Your task to perform on an android device: Search for a new lipstick on Sephora Image 0: 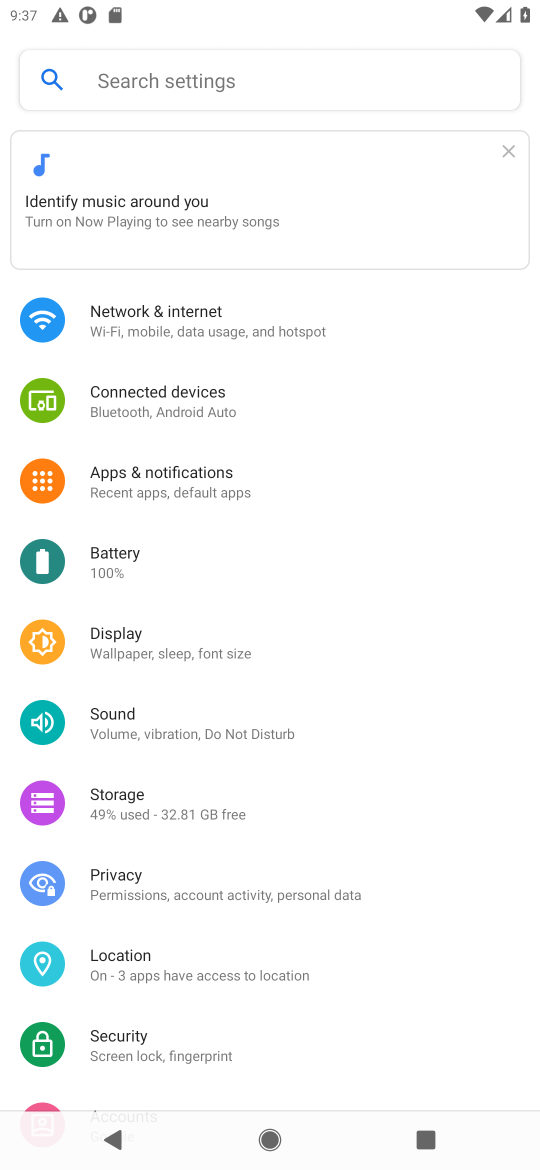
Step 0: press home button
Your task to perform on an android device: Search for a new lipstick on Sephora Image 1: 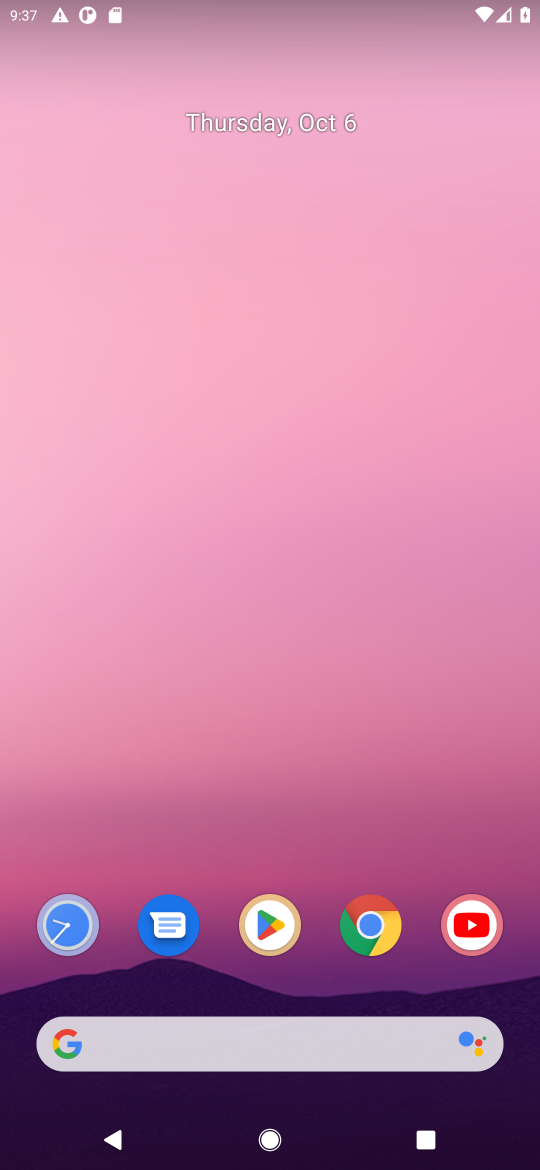
Step 1: click (352, 933)
Your task to perform on an android device: Search for a new lipstick on Sephora Image 2: 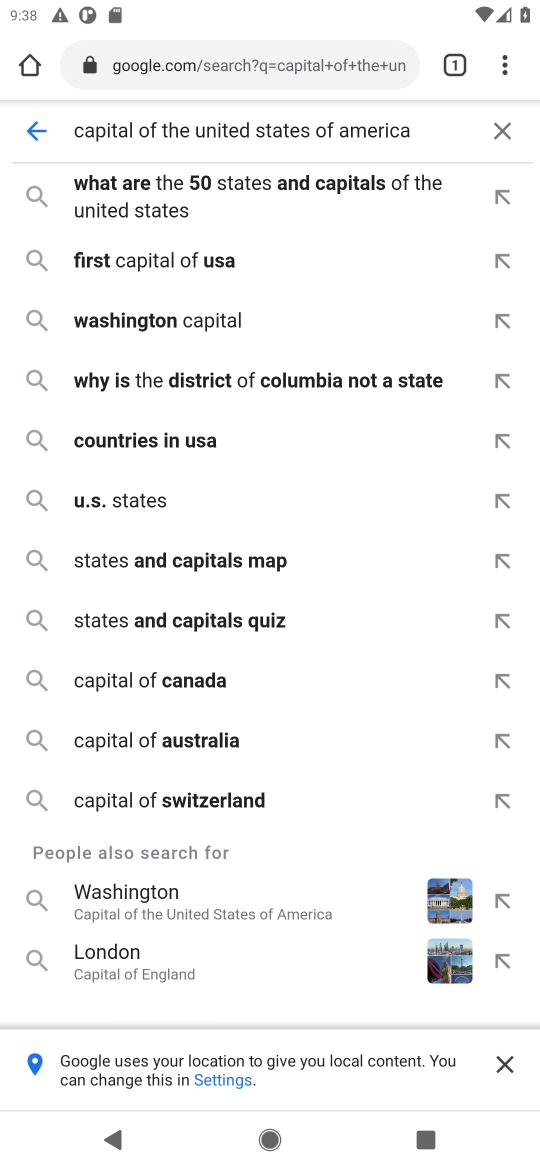
Step 2: click (118, 57)
Your task to perform on an android device: Search for a new lipstick on Sephora Image 3: 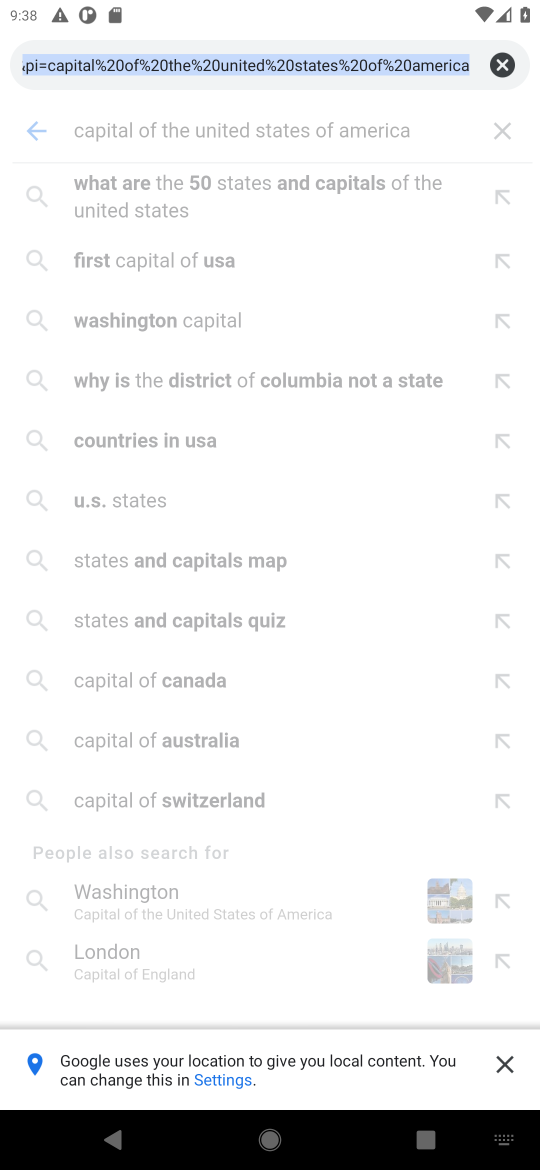
Step 3: click (120, 60)
Your task to perform on an android device: Search for a new lipstick on Sephora Image 4: 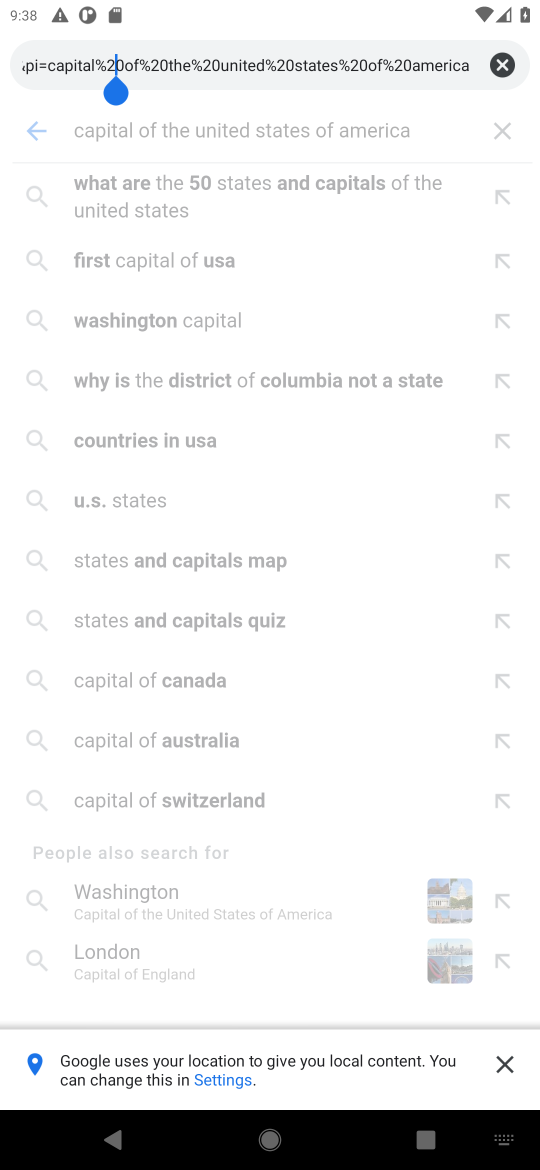
Step 4: click (496, 70)
Your task to perform on an android device: Search for a new lipstick on Sephora Image 5: 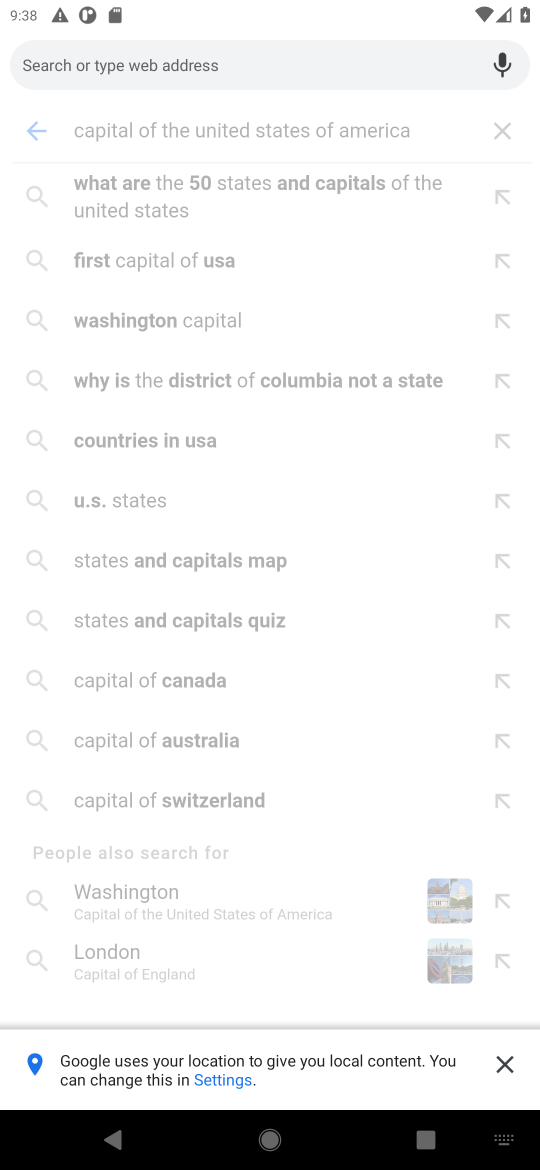
Step 5: type "new lipstick on Sephora"
Your task to perform on an android device: Search for a new lipstick on Sephora Image 6: 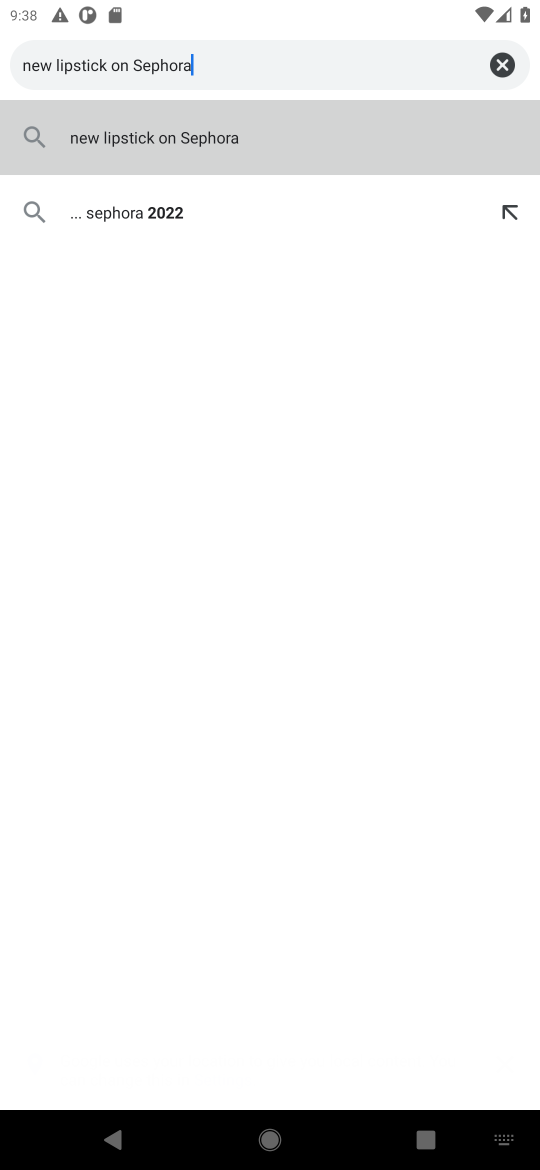
Step 6: click (169, 133)
Your task to perform on an android device: Search for a new lipstick on Sephora Image 7: 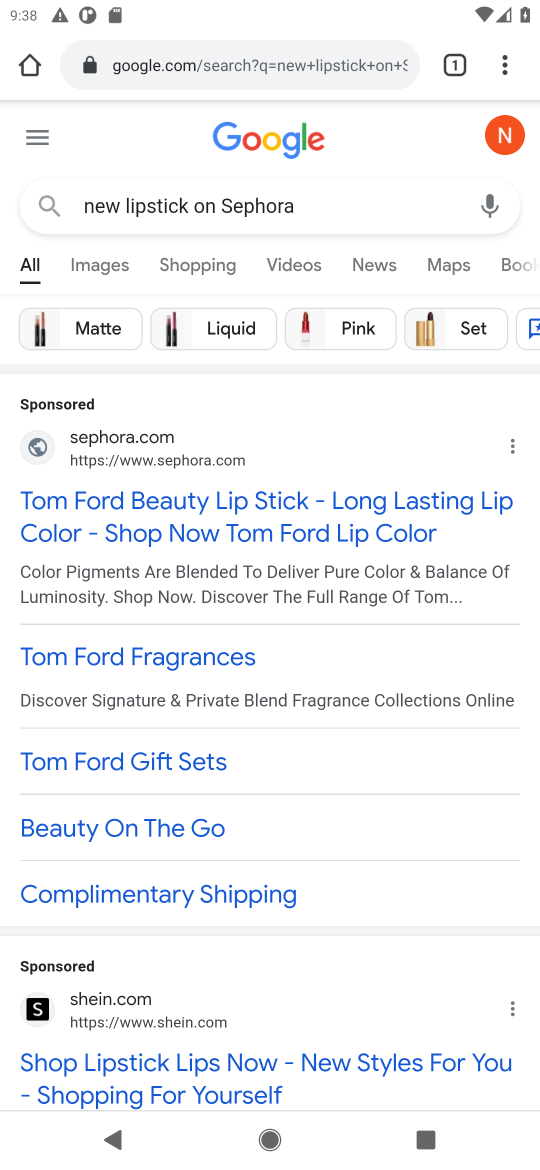
Step 7: click (218, 527)
Your task to perform on an android device: Search for a new lipstick on Sephora Image 8: 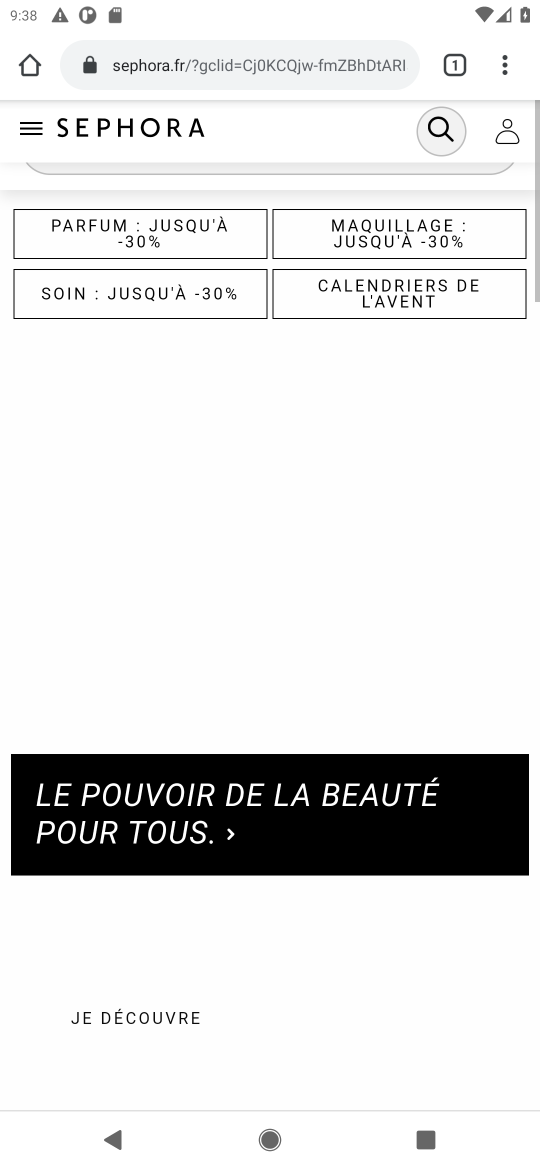
Step 8: click (192, 506)
Your task to perform on an android device: Search for a new lipstick on Sephora Image 9: 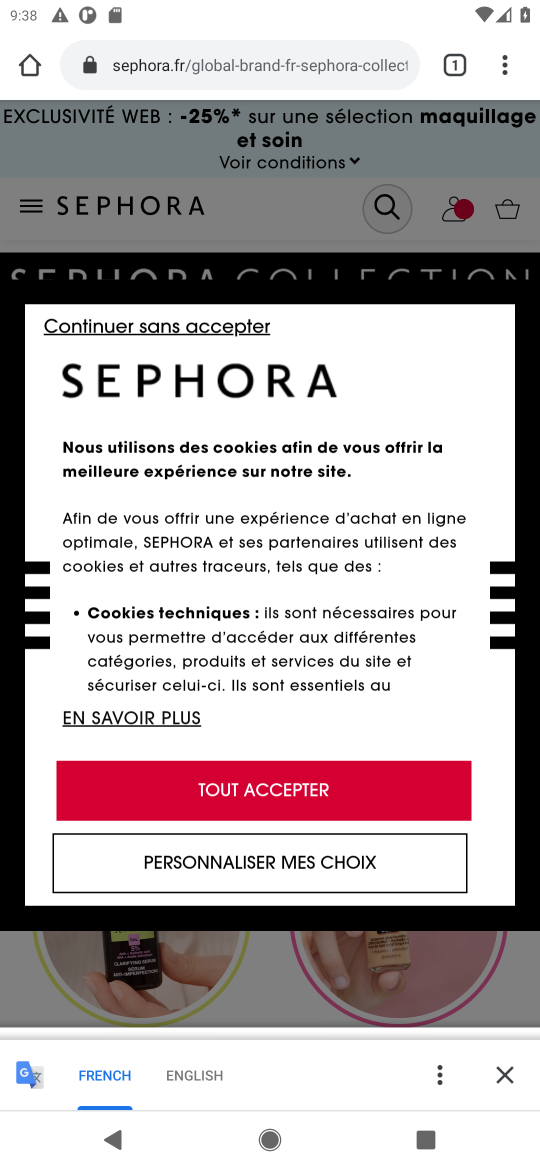
Step 9: click (241, 804)
Your task to perform on an android device: Search for a new lipstick on Sephora Image 10: 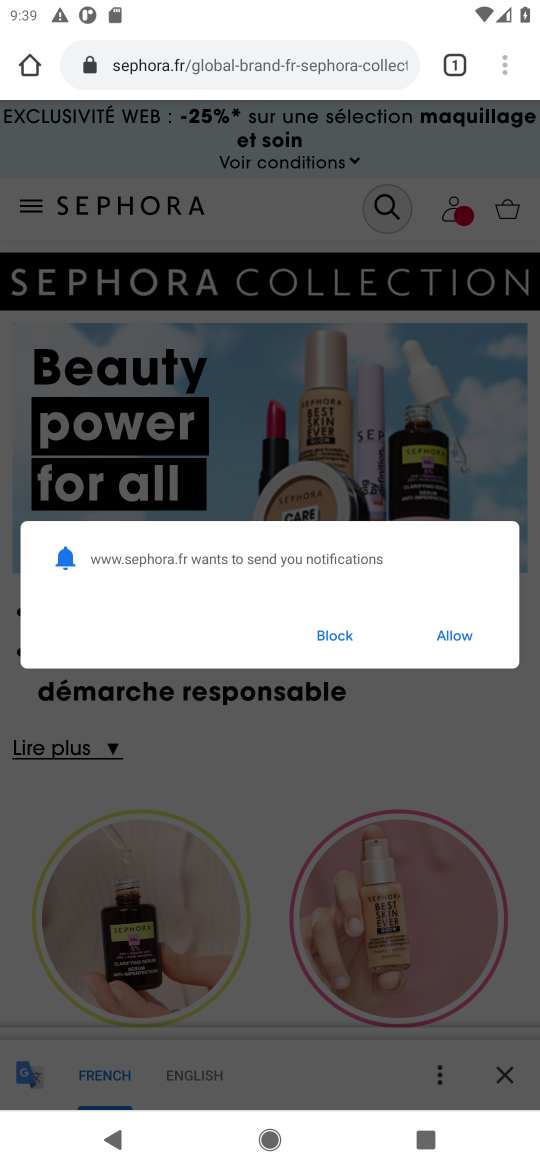
Step 10: click (449, 635)
Your task to perform on an android device: Search for a new lipstick on Sephora Image 11: 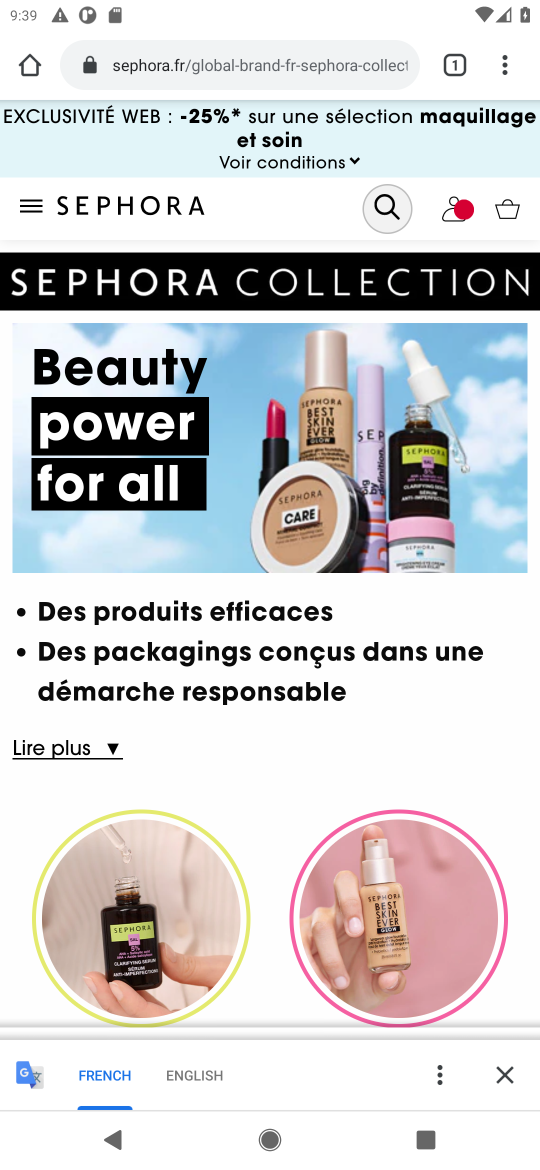
Step 11: click (449, 635)
Your task to perform on an android device: Search for a new lipstick on Sephora Image 12: 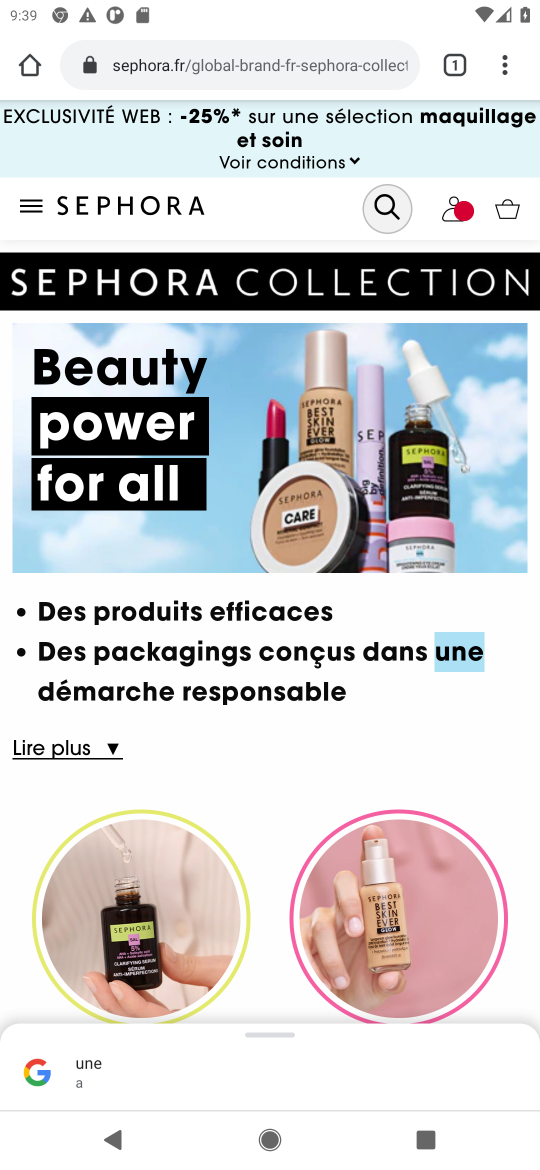
Step 12: press back button
Your task to perform on an android device: Search for a new lipstick on Sephora Image 13: 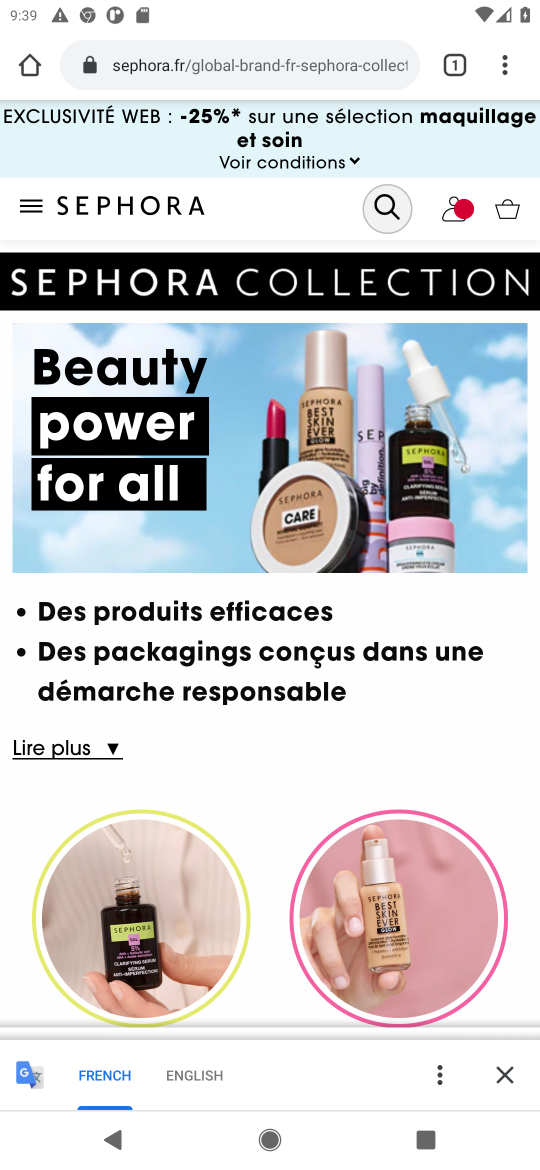
Step 13: click (370, 214)
Your task to perform on an android device: Search for a new lipstick on Sephora Image 14: 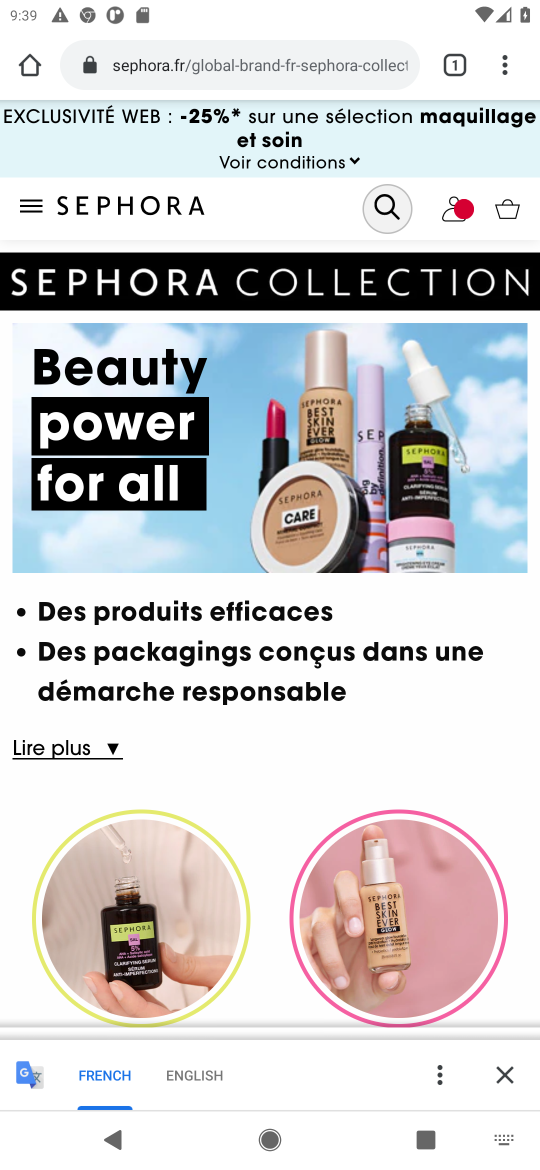
Step 14: click (370, 214)
Your task to perform on an android device: Search for a new lipstick on Sephora Image 15: 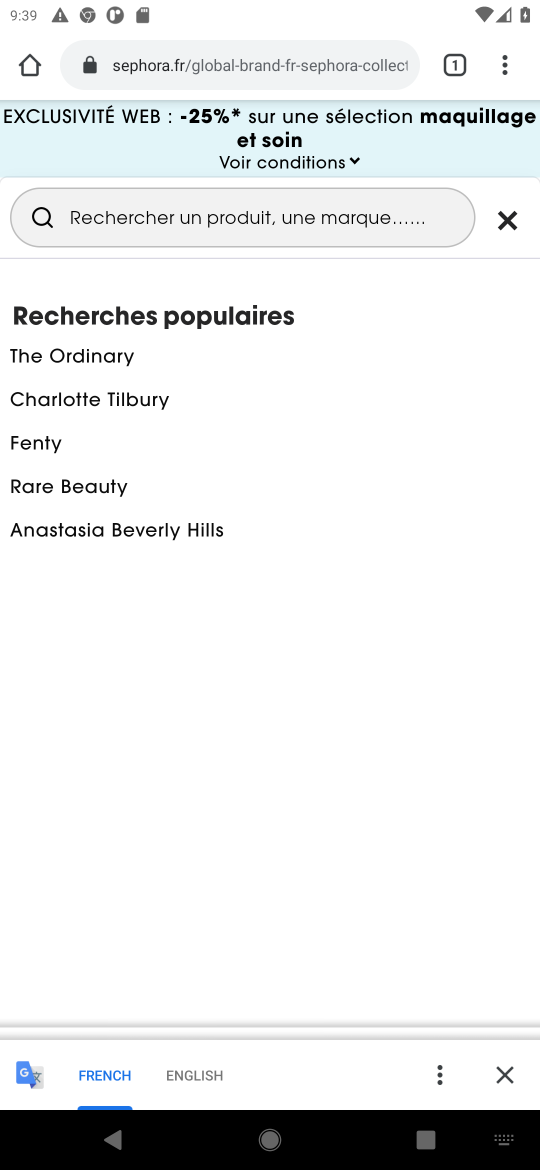
Step 15: click (370, 214)
Your task to perform on an android device: Search for a new lipstick on Sephora Image 16: 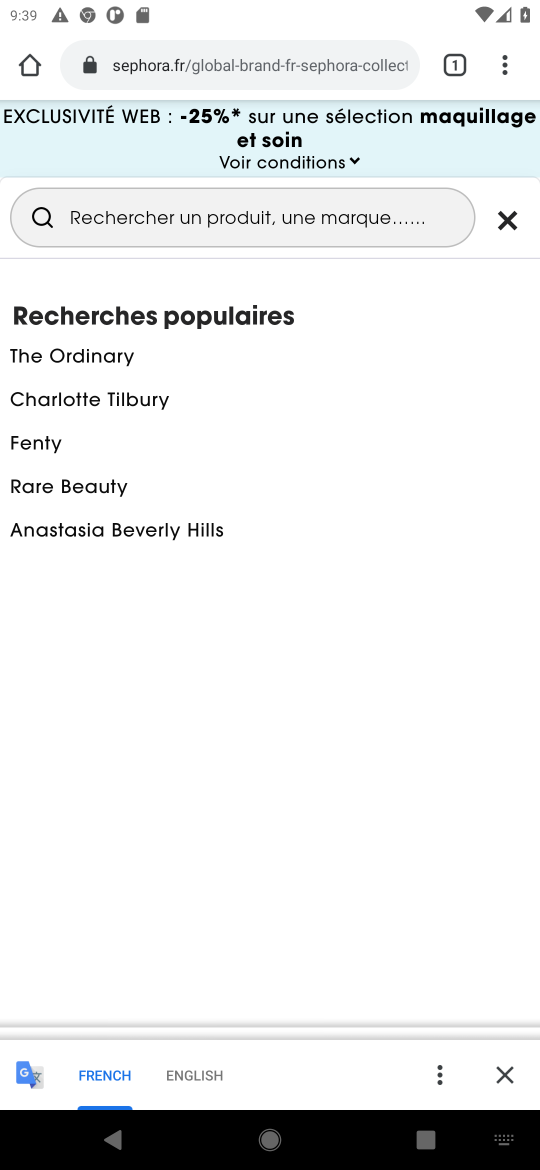
Step 16: click (370, 214)
Your task to perform on an android device: Search for a new lipstick on Sephora Image 17: 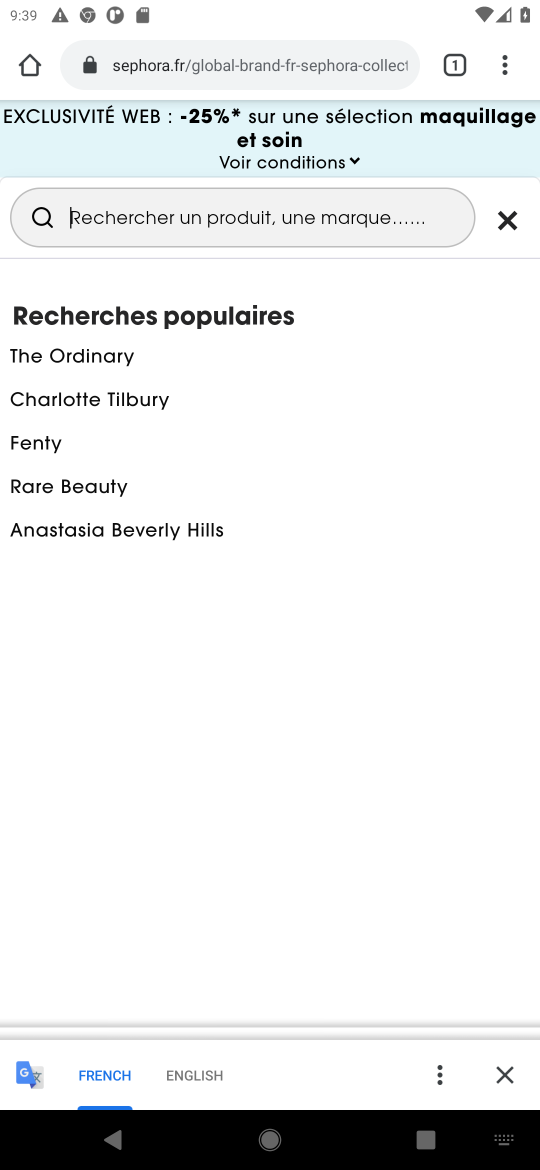
Step 17: type "new lipstick"
Your task to perform on an android device: Search for a new lipstick on Sephora Image 18: 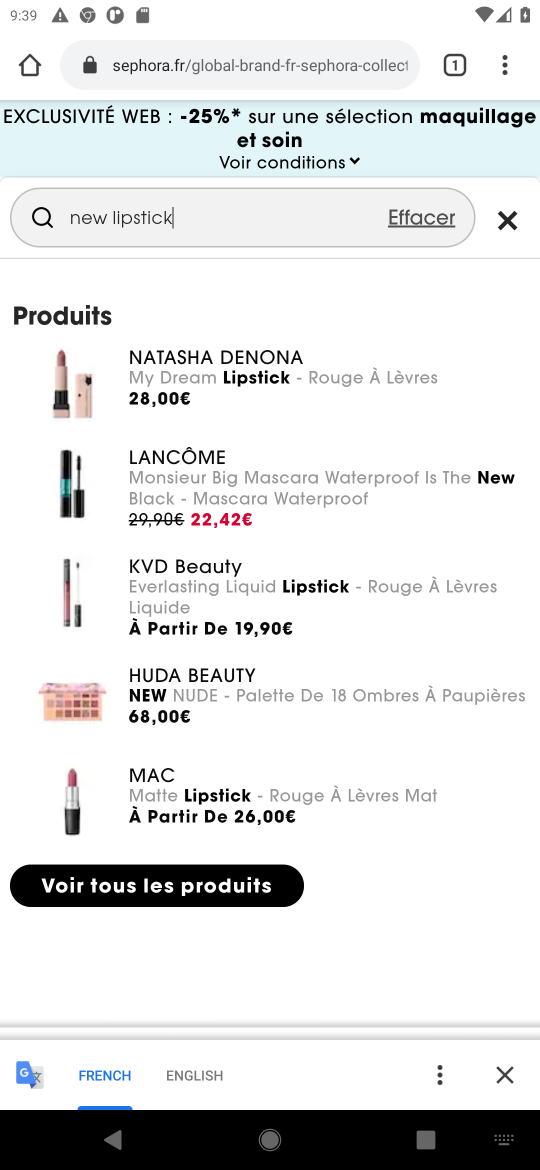
Step 18: click (209, 406)
Your task to perform on an android device: Search for a new lipstick on Sephora Image 19: 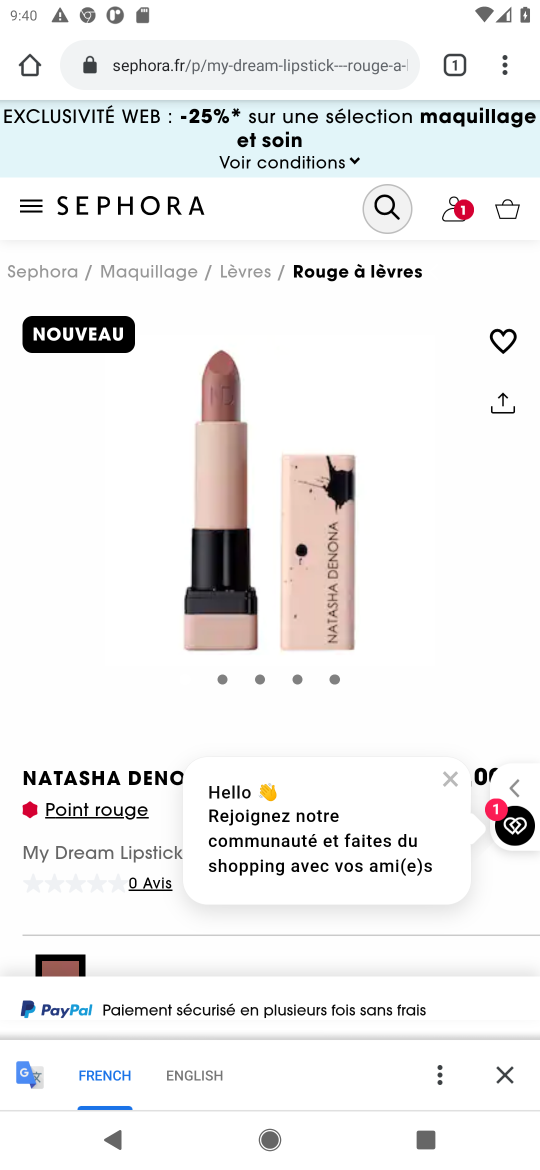
Step 19: task complete